Your task to perform on an android device: Open the calendar app, open the side menu, and click the "Day" option Image 0: 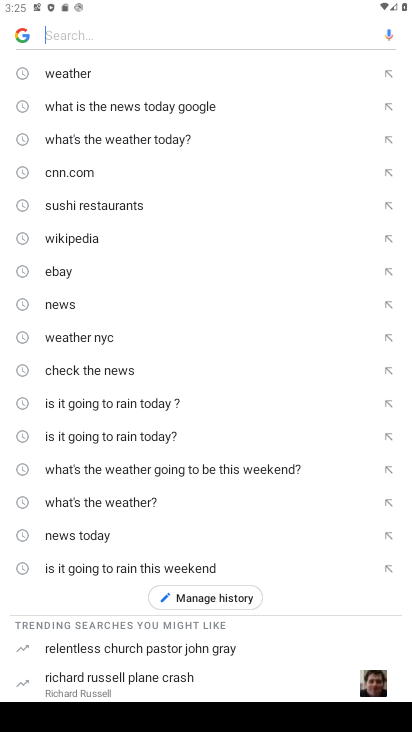
Step 0: press home button
Your task to perform on an android device: Open the calendar app, open the side menu, and click the "Day" option Image 1: 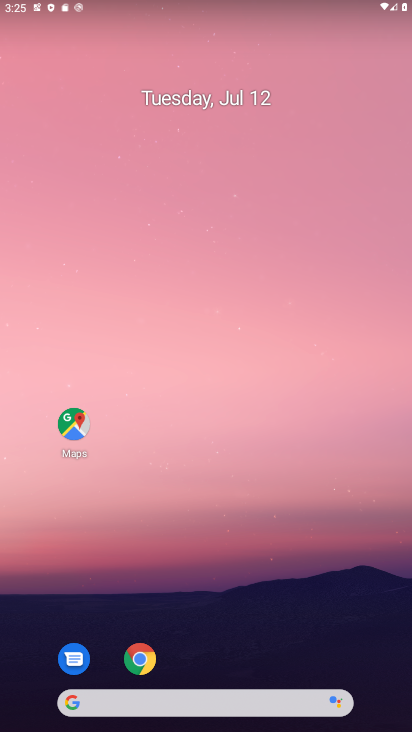
Step 1: drag from (231, 697) to (236, 70)
Your task to perform on an android device: Open the calendar app, open the side menu, and click the "Day" option Image 2: 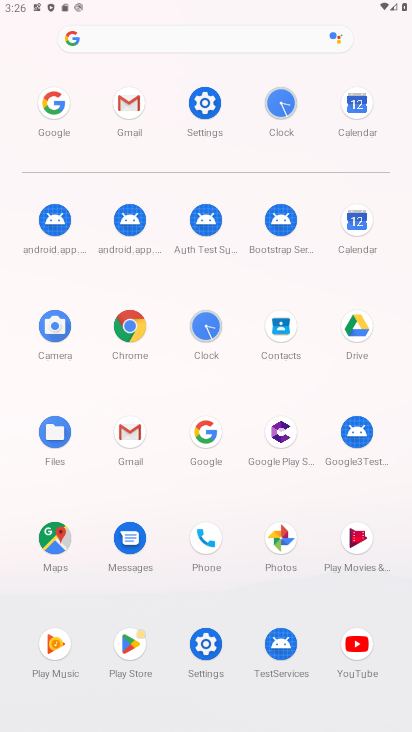
Step 2: click (284, 326)
Your task to perform on an android device: Open the calendar app, open the side menu, and click the "Day" option Image 3: 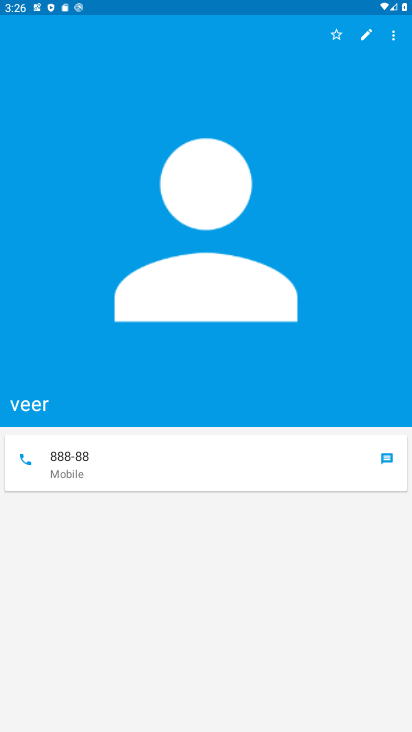
Step 3: press home button
Your task to perform on an android device: Open the calendar app, open the side menu, and click the "Day" option Image 4: 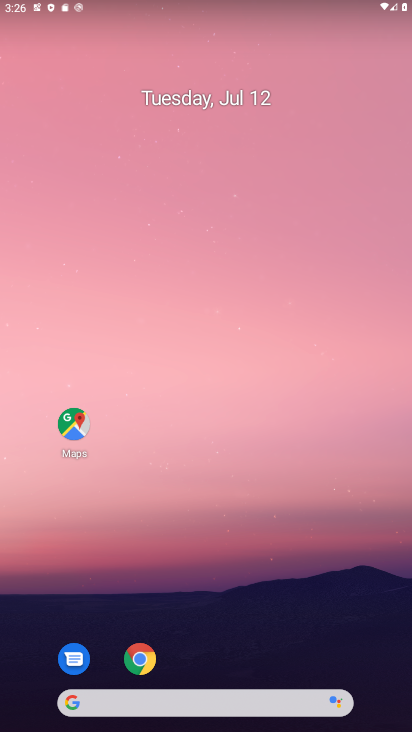
Step 4: drag from (269, 695) to (235, 119)
Your task to perform on an android device: Open the calendar app, open the side menu, and click the "Day" option Image 5: 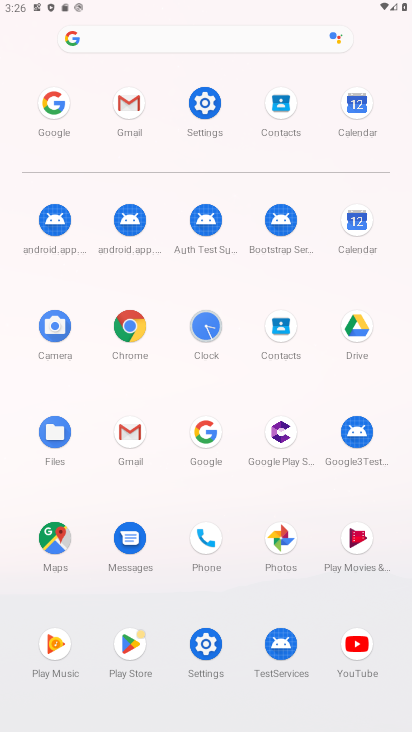
Step 5: click (360, 225)
Your task to perform on an android device: Open the calendar app, open the side menu, and click the "Day" option Image 6: 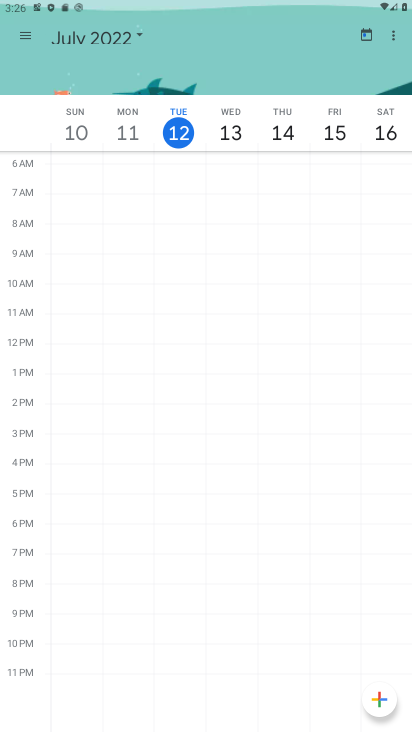
Step 6: click (22, 24)
Your task to perform on an android device: Open the calendar app, open the side menu, and click the "Day" option Image 7: 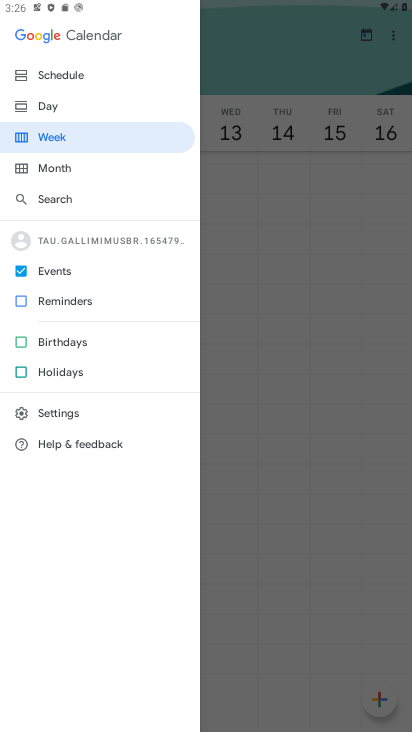
Step 7: click (43, 102)
Your task to perform on an android device: Open the calendar app, open the side menu, and click the "Day" option Image 8: 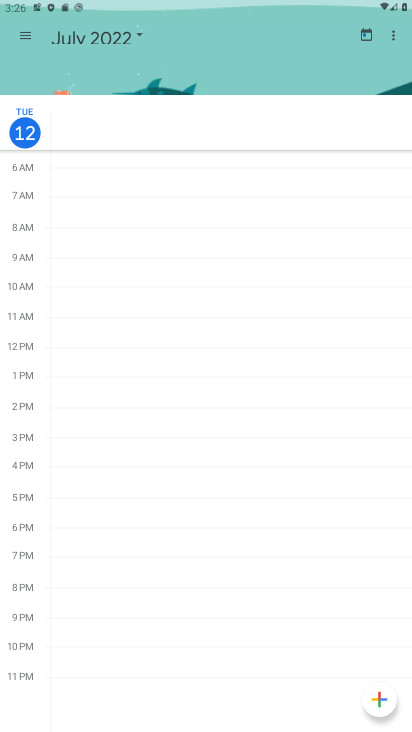
Step 8: task complete